Your task to perform on an android device: Add sony triple a to the cart on walmart, then select checkout. Image 0: 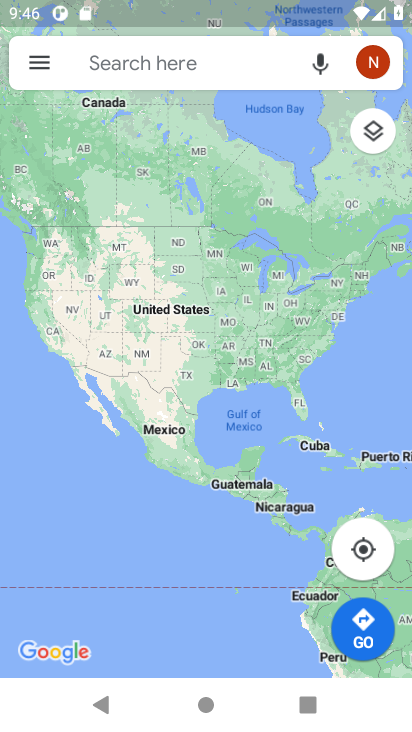
Step 0: press home button
Your task to perform on an android device: Add sony triple a to the cart on walmart, then select checkout. Image 1: 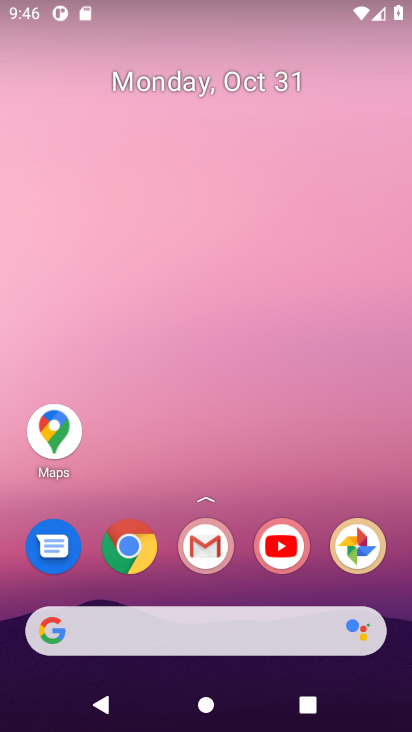
Step 1: click (148, 544)
Your task to perform on an android device: Add sony triple a to the cart on walmart, then select checkout. Image 2: 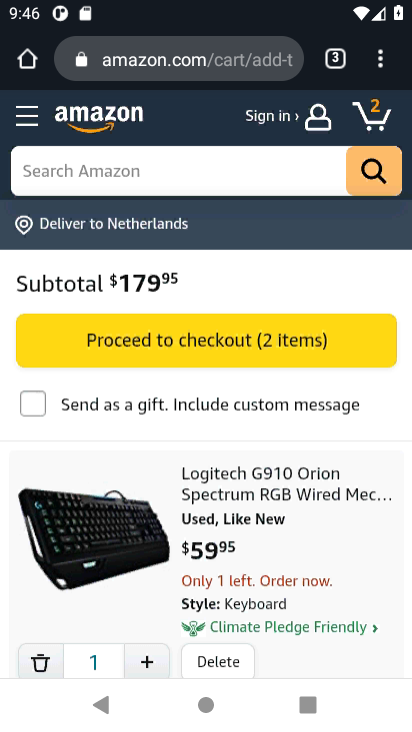
Step 2: click (145, 49)
Your task to perform on an android device: Add sony triple a to the cart on walmart, then select checkout. Image 3: 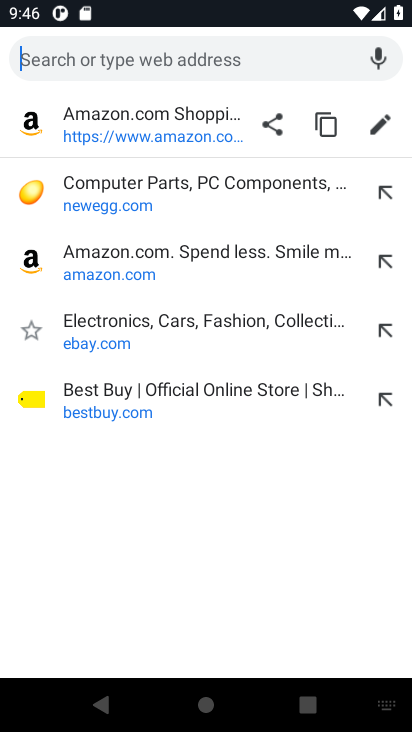
Step 3: type "walmart"
Your task to perform on an android device: Add sony triple a to the cart on walmart, then select checkout. Image 4: 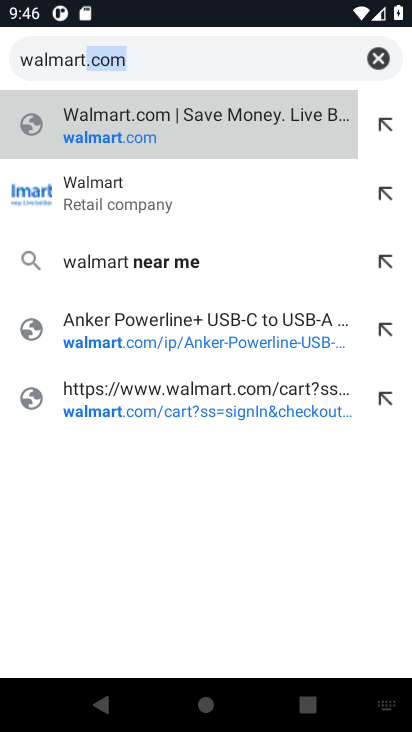
Step 4: press enter
Your task to perform on an android device: Add sony triple a to the cart on walmart, then select checkout. Image 5: 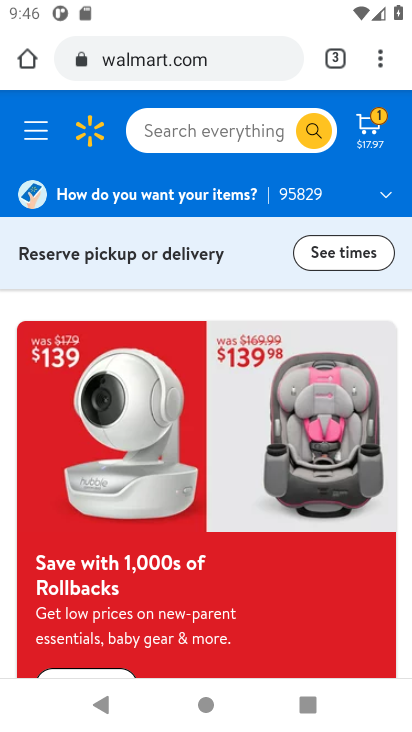
Step 5: click (189, 128)
Your task to perform on an android device: Add sony triple a to the cart on walmart, then select checkout. Image 6: 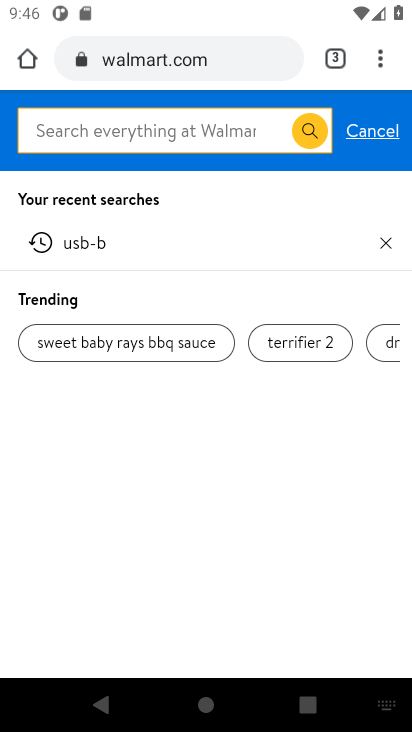
Step 6: type " sony triple a"
Your task to perform on an android device: Add sony triple a to the cart on walmart, then select checkout. Image 7: 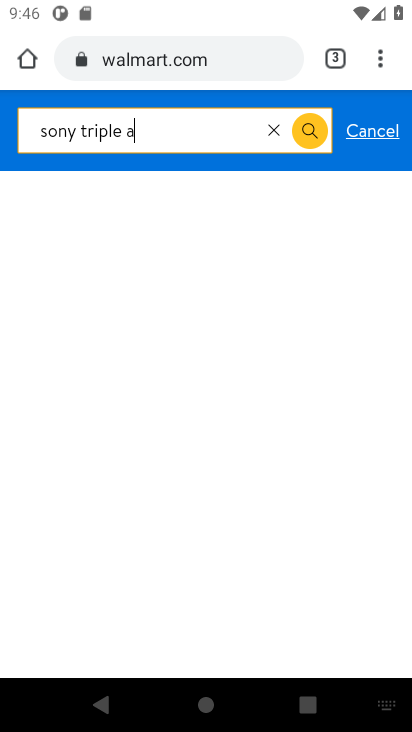
Step 7: press enter
Your task to perform on an android device: Add sony triple a to the cart on walmart, then select checkout. Image 8: 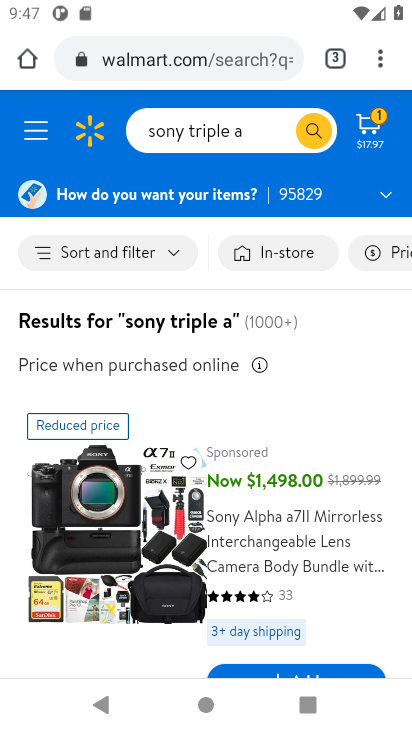
Step 8: drag from (219, 497) to (329, 242)
Your task to perform on an android device: Add sony triple a to the cart on walmart, then select checkout. Image 9: 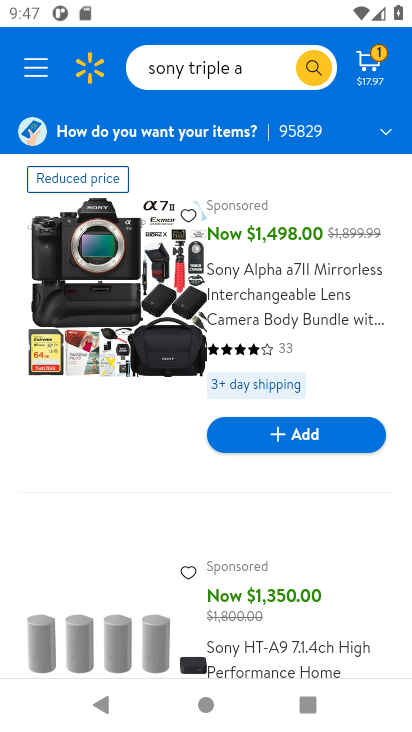
Step 9: click (105, 311)
Your task to perform on an android device: Add sony triple a to the cart on walmart, then select checkout. Image 10: 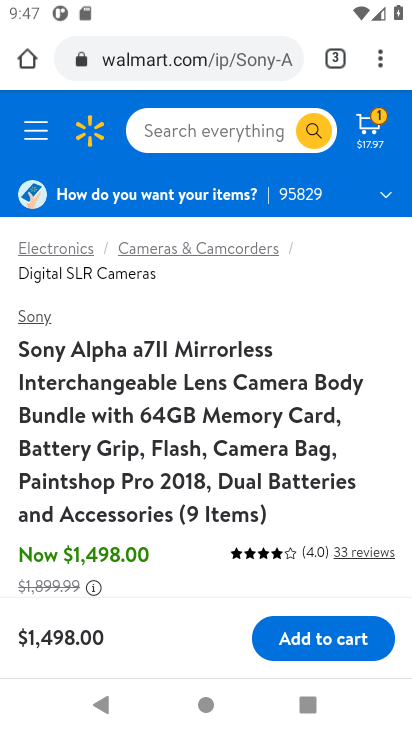
Step 10: drag from (264, 460) to (329, 167)
Your task to perform on an android device: Add sony triple a to the cart on walmart, then select checkout. Image 11: 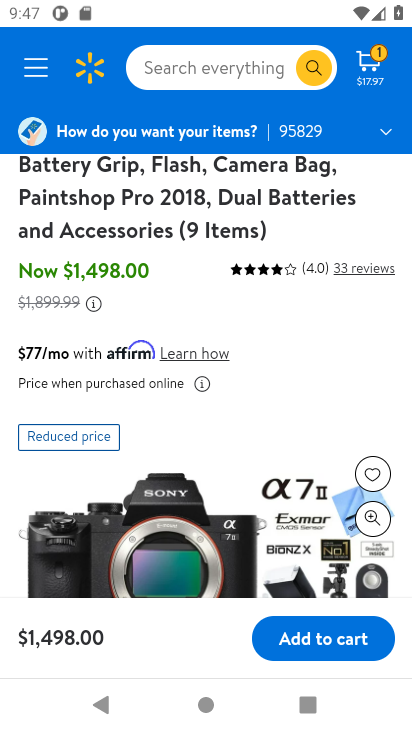
Step 11: click (290, 639)
Your task to perform on an android device: Add sony triple a to the cart on walmart, then select checkout. Image 12: 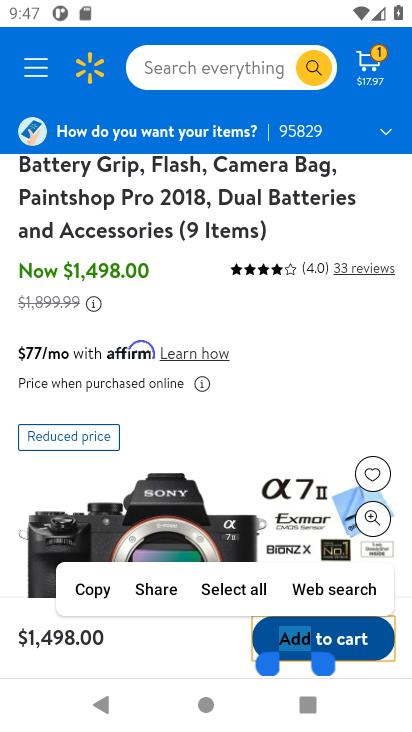
Step 12: click (315, 326)
Your task to perform on an android device: Add sony triple a to the cart on walmart, then select checkout. Image 13: 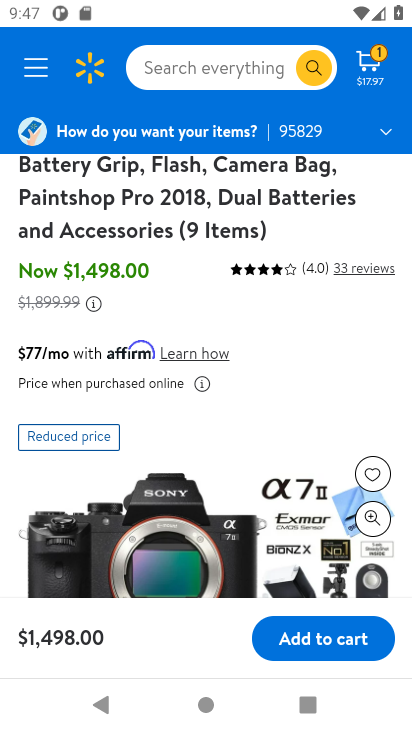
Step 13: click (359, 642)
Your task to perform on an android device: Add sony triple a to the cart on walmart, then select checkout. Image 14: 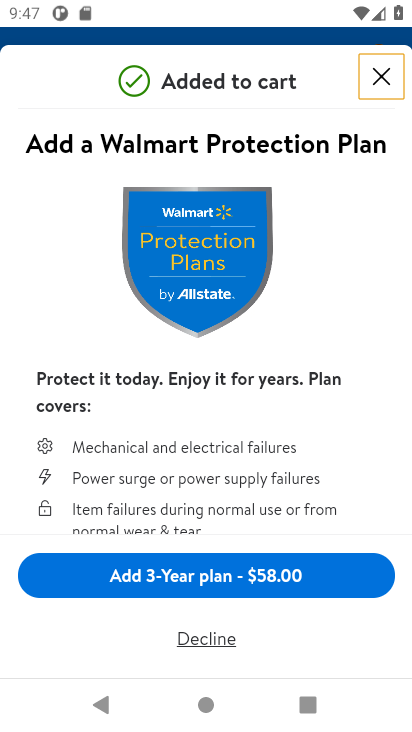
Step 14: click (385, 73)
Your task to perform on an android device: Add sony triple a to the cart on walmart, then select checkout. Image 15: 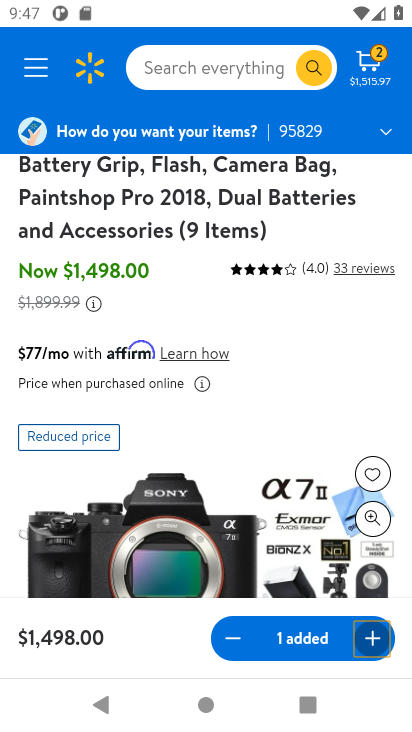
Step 15: click (378, 72)
Your task to perform on an android device: Add sony triple a to the cart on walmart, then select checkout. Image 16: 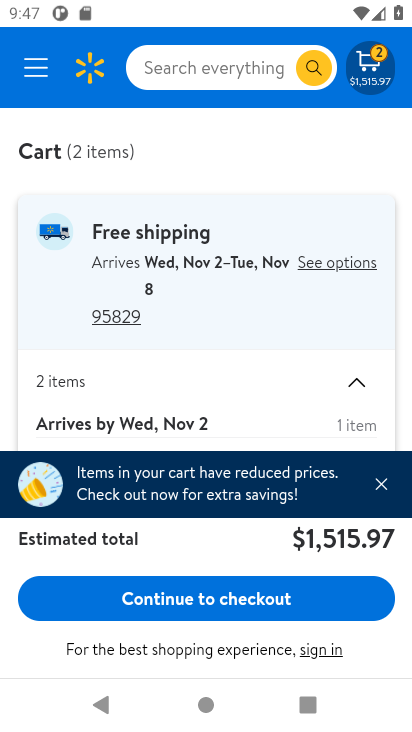
Step 16: click (241, 602)
Your task to perform on an android device: Add sony triple a to the cart on walmart, then select checkout. Image 17: 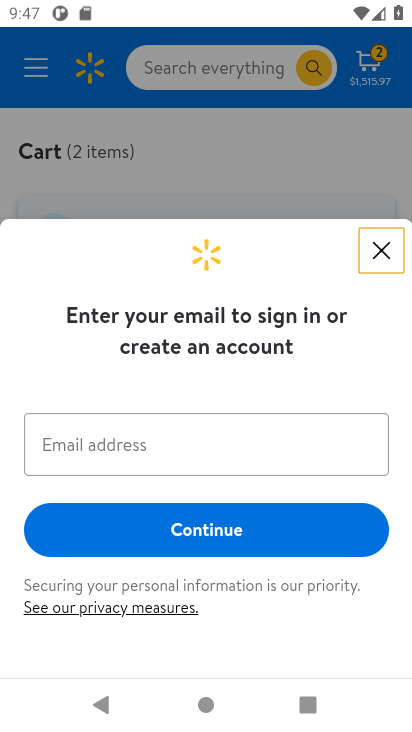
Step 17: task complete